Your task to perform on an android device: Search for Italian restaurants on Maps Image 0: 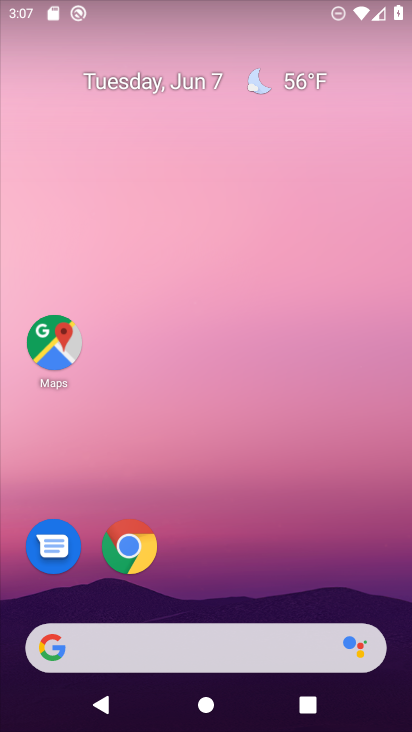
Step 0: drag from (278, 551) to (233, 31)
Your task to perform on an android device: Search for Italian restaurants on Maps Image 1: 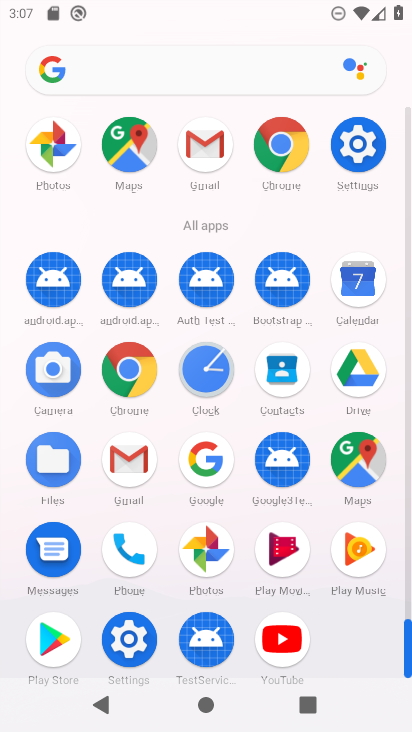
Step 1: drag from (20, 504) to (31, 198)
Your task to perform on an android device: Search for Italian restaurants on Maps Image 2: 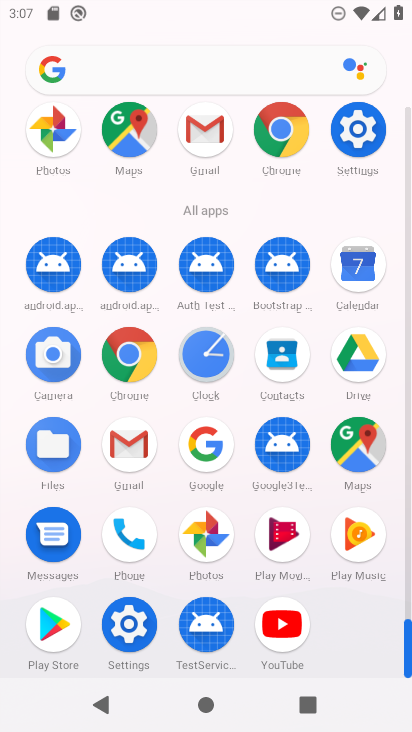
Step 2: click (357, 437)
Your task to perform on an android device: Search for Italian restaurants on Maps Image 3: 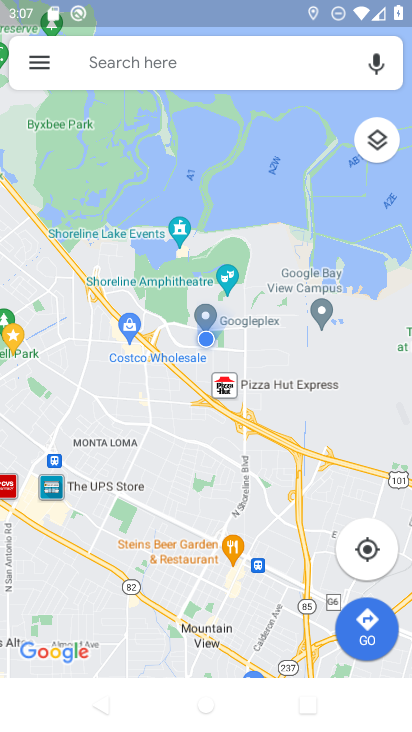
Step 3: click (239, 68)
Your task to perform on an android device: Search for Italian restaurants on Maps Image 4: 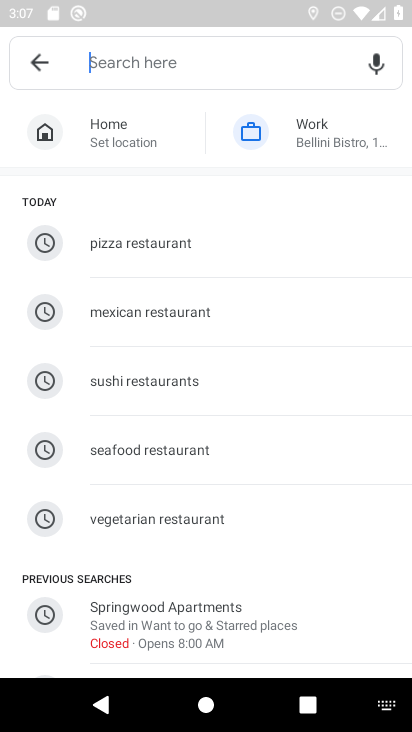
Step 4: type " Italian restaurants"
Your task to perform on an android device: Search for Italian restaurants on Maps Image 5: 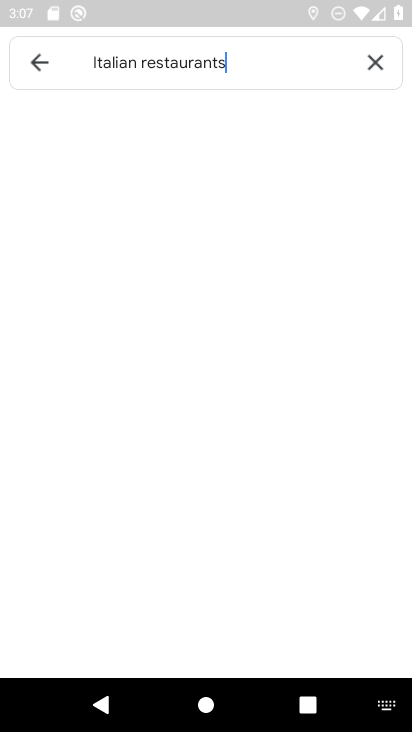
Step 5: type ""
Your task to perform on an android device: Search for Italian restaurants on Maps Image 6: 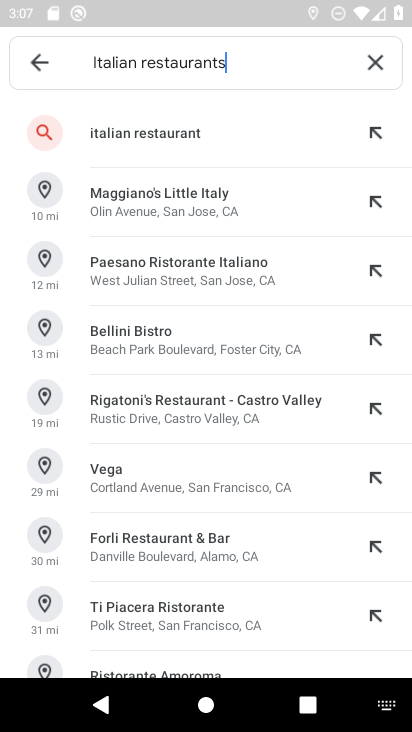
Step 6: click (207, 135)
Your task to perform on an android device: Search for Italian restaurants on Maps Image 7: 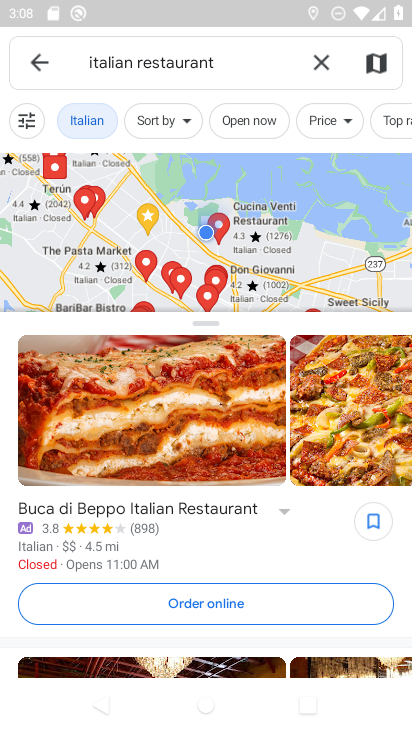
Step 7: task complete